Your task to perform on an android device: refresh tabs in the chrome app Image 0: 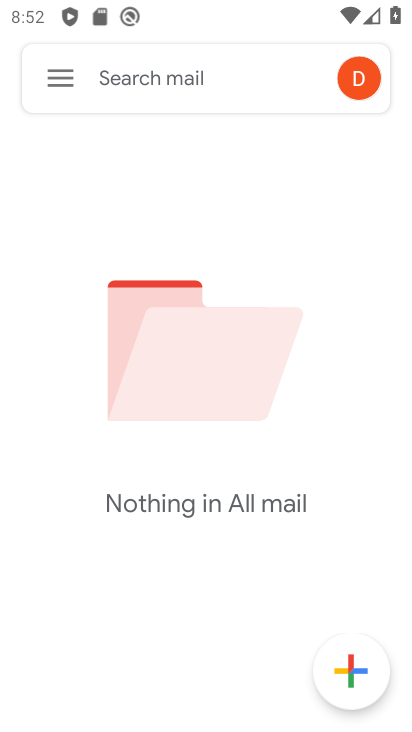
Step 0: press home button
Your task to perform on an android device: refresh tabs in the chrome app Image 1: 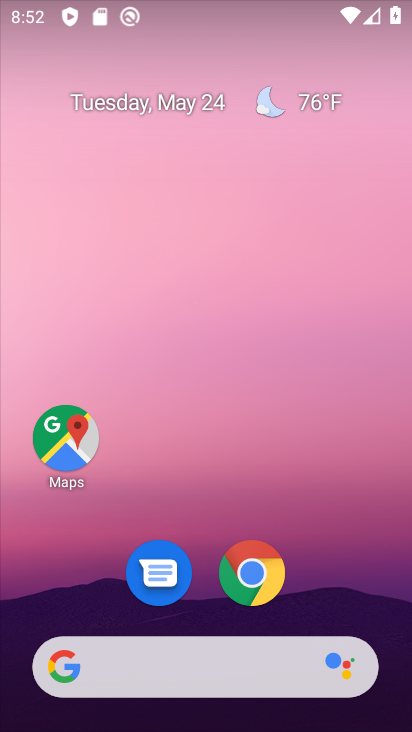
Step 1: click (237, 571)
Your task to perform on an android device: refresh tabs in the chrome app Image 2: 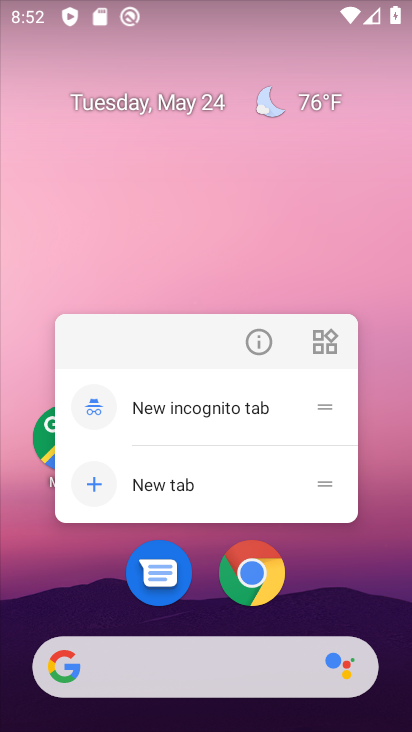
Step 2: click (248, 573)
Your task to perform on an android device: refresh tabs in the chrome app Image 3: 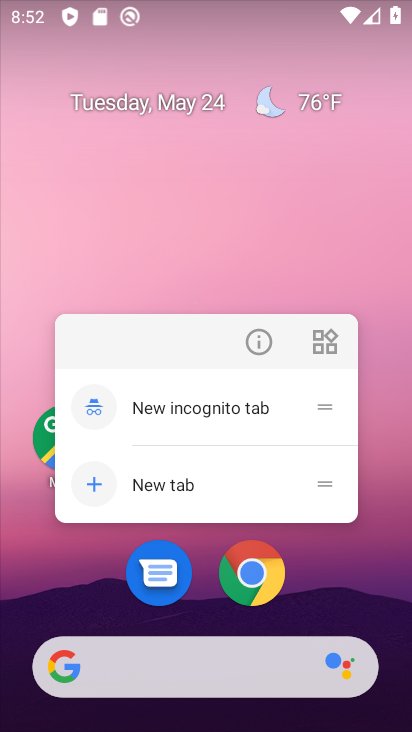
Step 3: click (248, 579)
Your task to perform on an android device: refresh tabs in the chrome app Image 4: 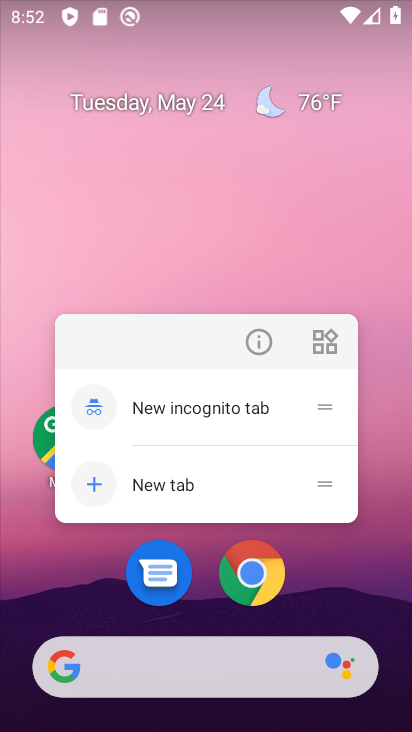
Step 4: click (258, 579)
Your task to perform on an android device: refresh tabs in the chrome app Image 5: 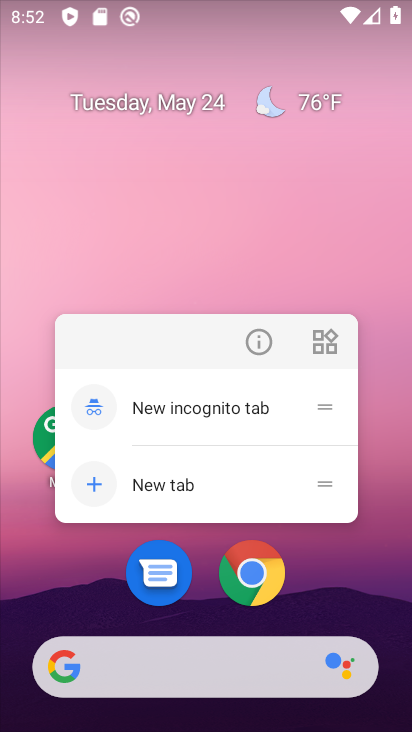
Step 5: click (258, 579)
Your task to perform on an android device: refresh tabs in the chrome app Image 6: 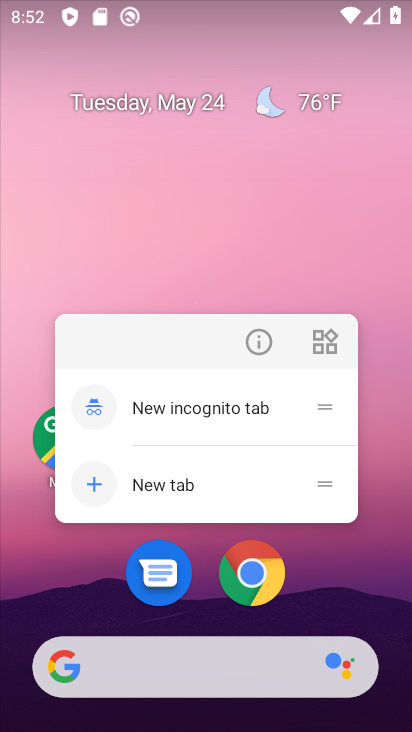
Step 6: click (267, 575)
Your task to perform on an android device: refresh tabs in the chrome app Image 7: 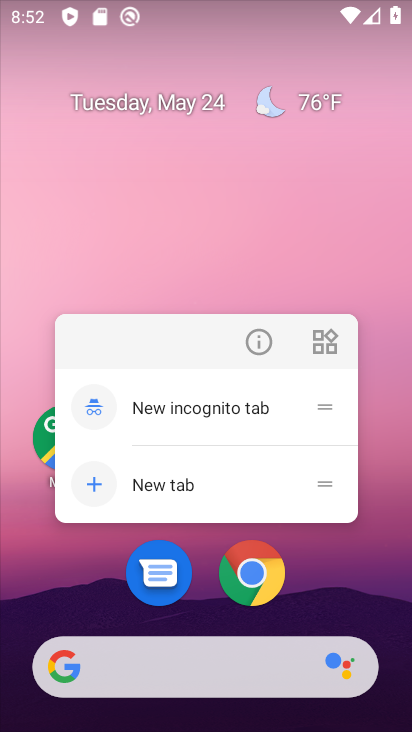
Step 7: click (254, 576)
Your task to perform on an android device: refresh tabs in the chrome app Image 8: 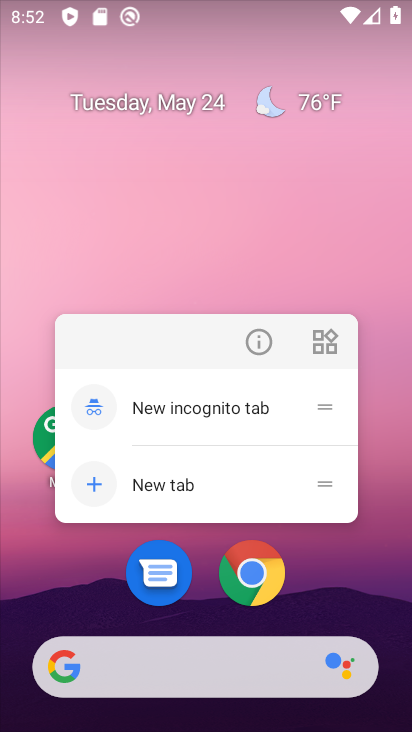
Step 8: click (253, 585)
Your task to perform on an android device: refresh tabs in the chrome app Image 9: 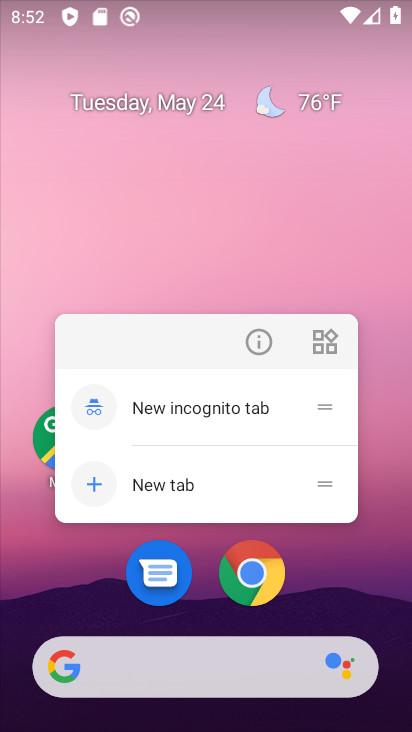
Step 9: click (267, 578)
Your task to perform on an android device: refresh tabs in the chrome app Image 10: 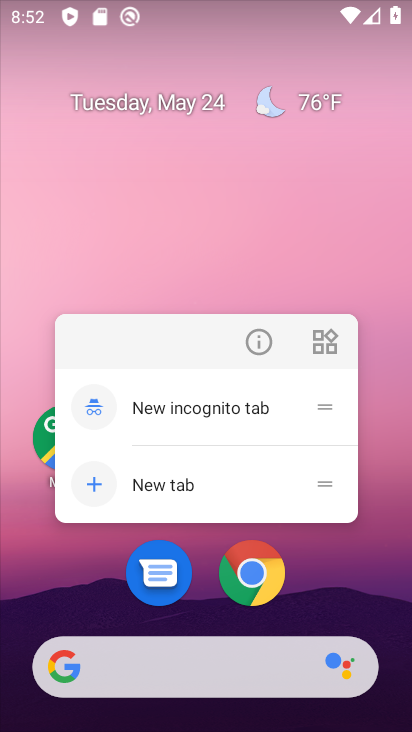
Step 10: click (262, 571)
Your task to perform on an android device: refresh tabs in the chrome app Image 11: 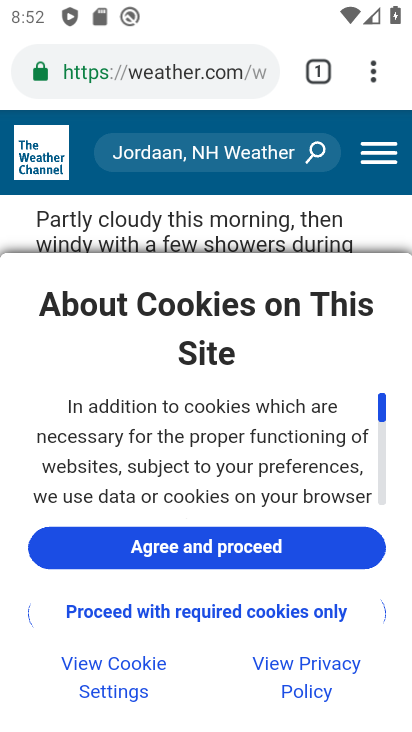
Step 11: click (384, 72)
Your task to perform on an android device: refresh tabs in the chrome app Image 12: 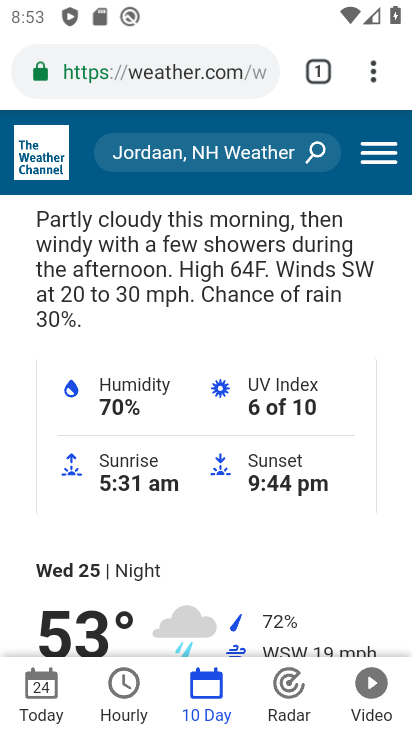
Step 12: task complete